Your task to perform on an android device: open app "Clock" Image 0: 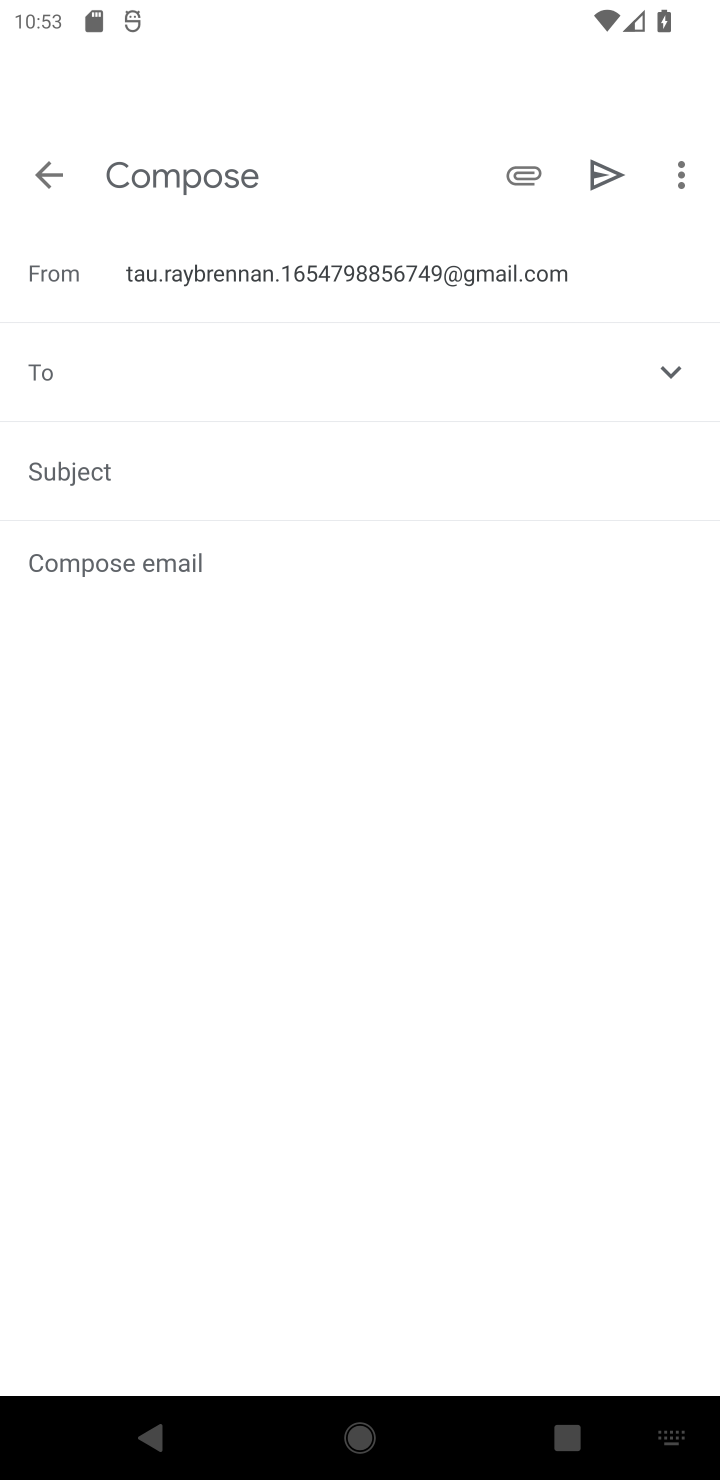
Step 0: press home button
Your task to perform on an android device: open app "Clock" Image 1: 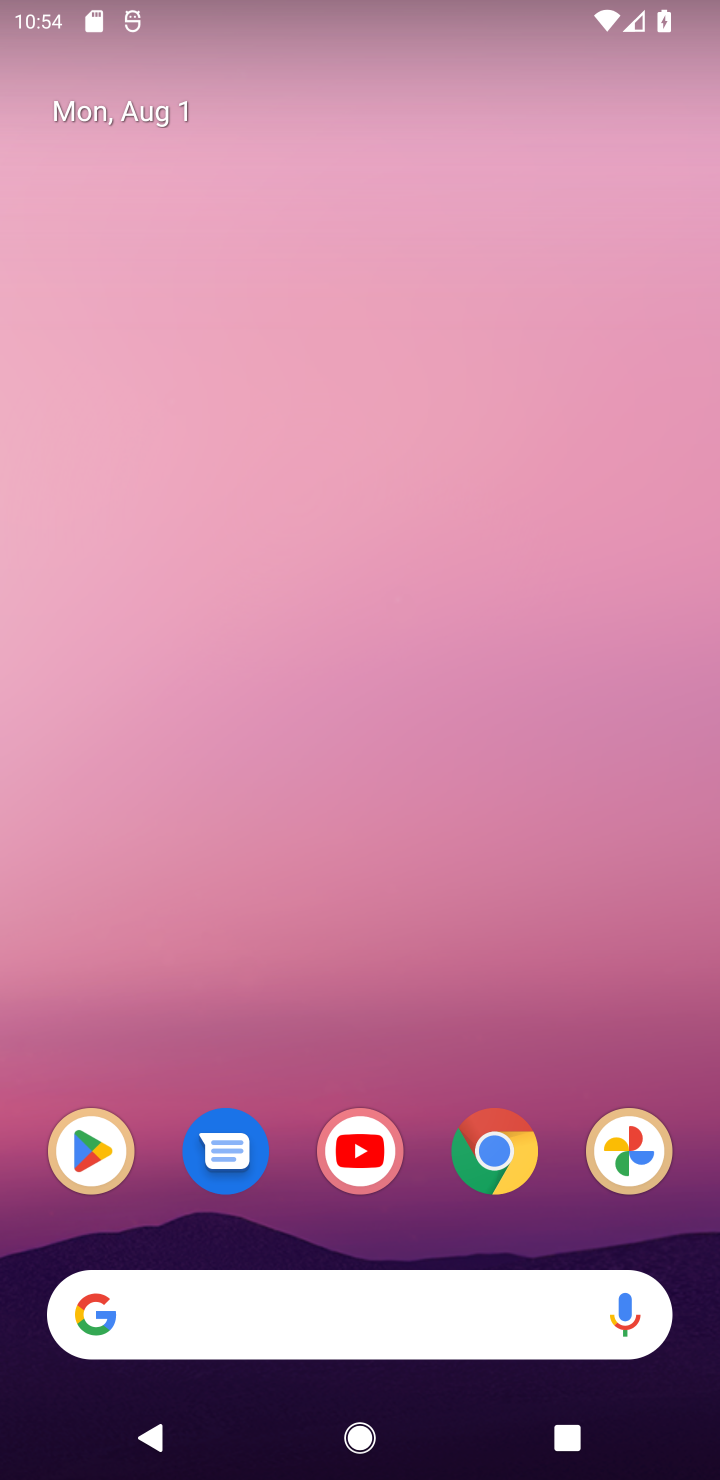
Step 1: drag from (398, 1174) to (398, 128)
Your task to perform on an android device: open app "Clock" Image 2: 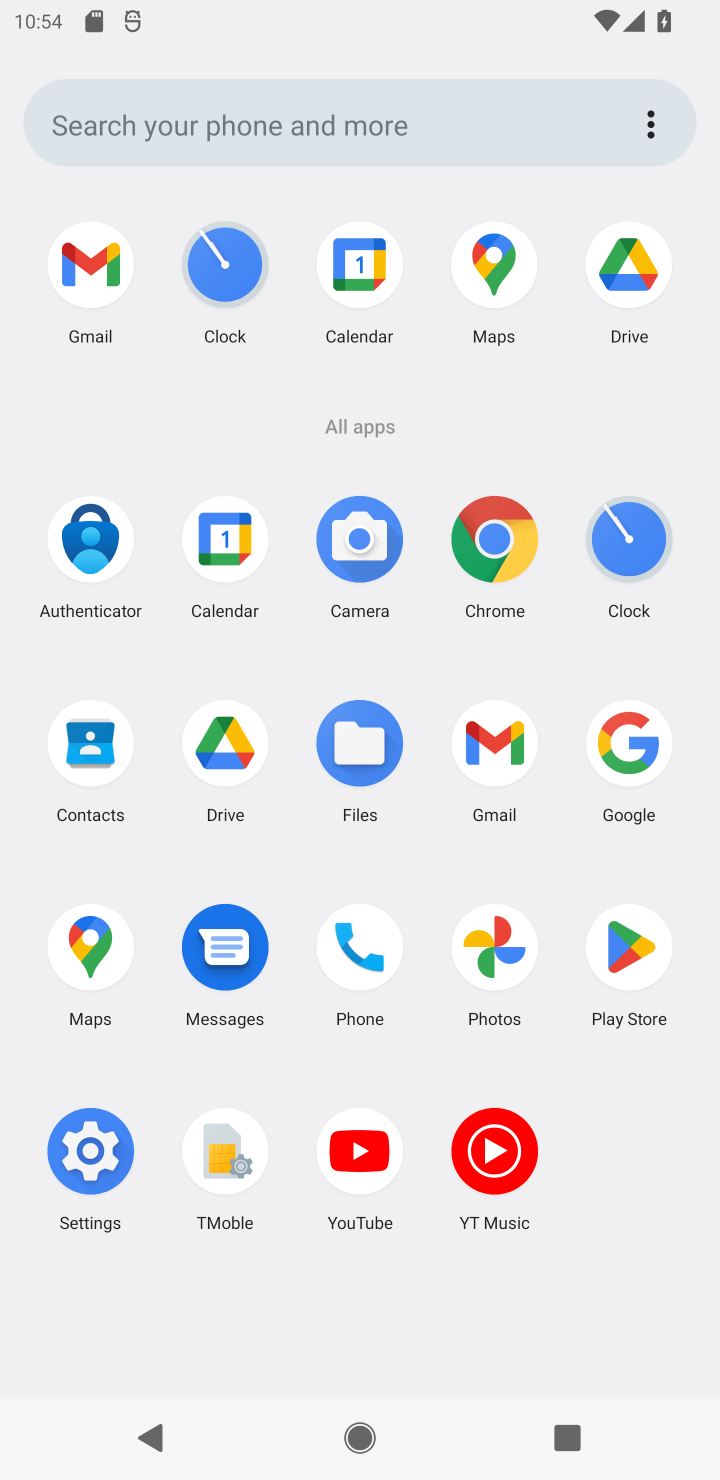
Step 2: click (630, 561)
Your task to perform on an android device: open app "Clock" Image 3: 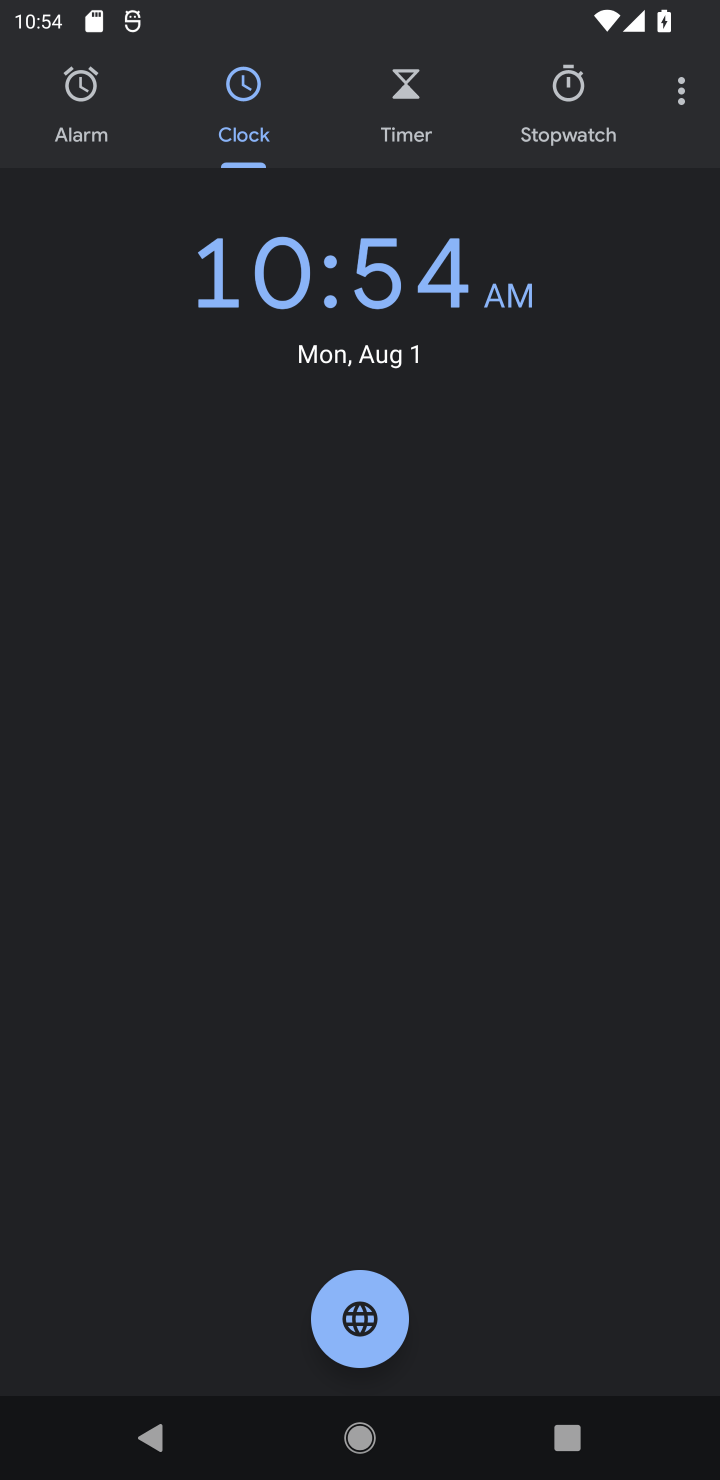
Step 3: task complete